Your task to perform on an android device: turn on wifi Image 0: 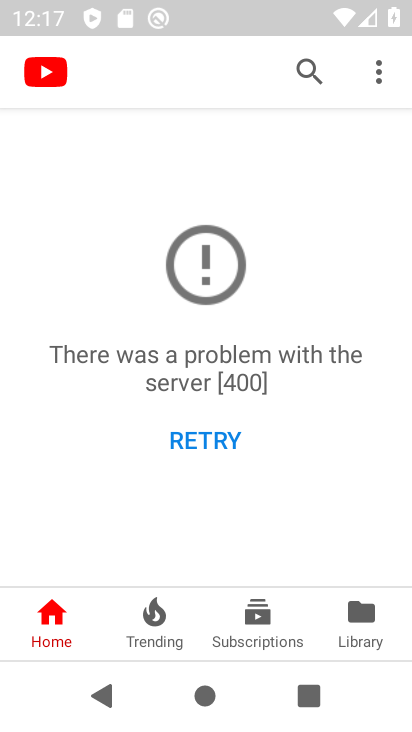
Step 0: press home button
Your task to perform on an android device: turn on wifi Image 1: 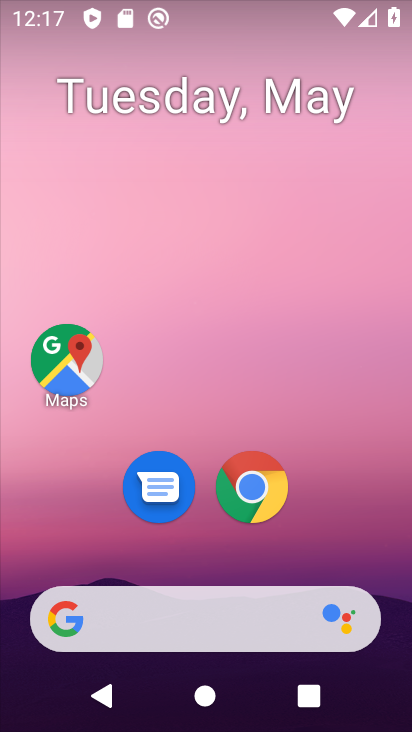
Step 1: drag from (318, 419) to (307, 56)
Your task to perform on an android device: turn on wifi Image 2: 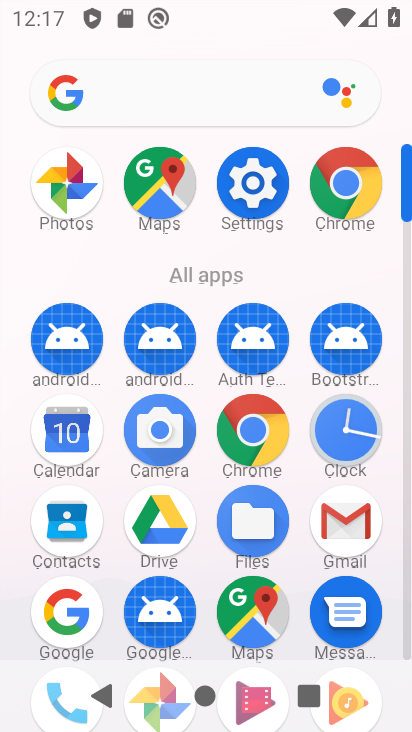
Step 2: click (245, 172)
Your task to perform on an android device: turn on wifi Image 3: 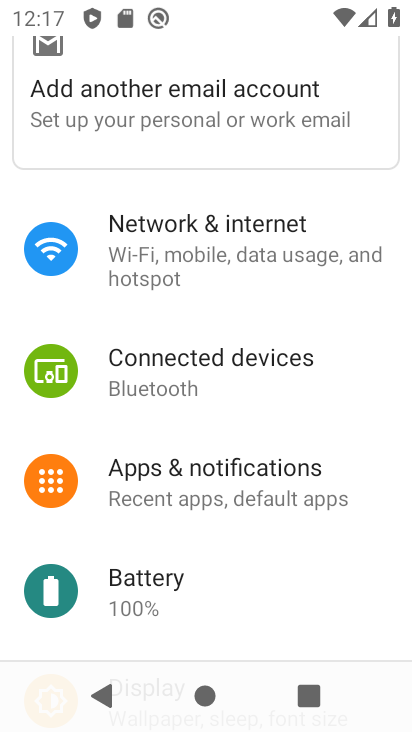
Step 3: click (243, 255)
Your task to perform on an android device: turn on wifi Image 4: 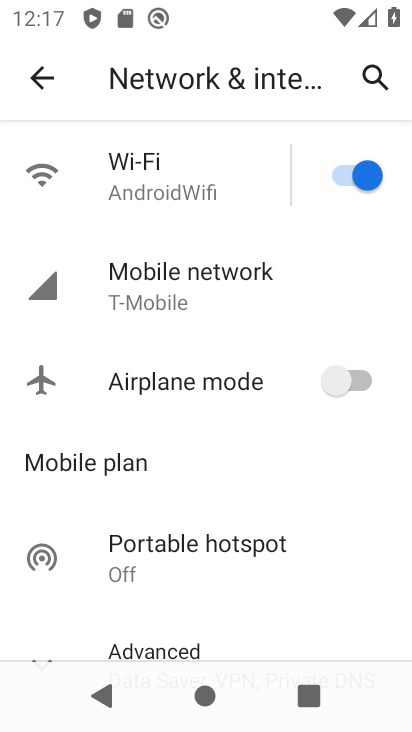
Step 4: task complete